Your task to perform on an android device: open a new tab in the chrome app Image 0: 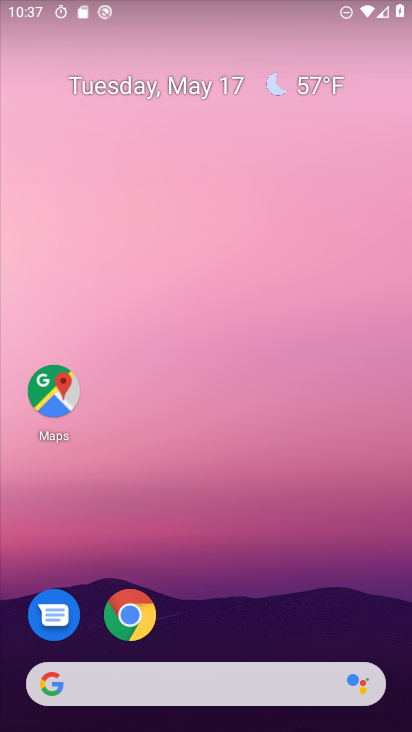
Step 0: click (141, 615)
Your task to perform on an android device: open a new tab in the chrome app Image 1: 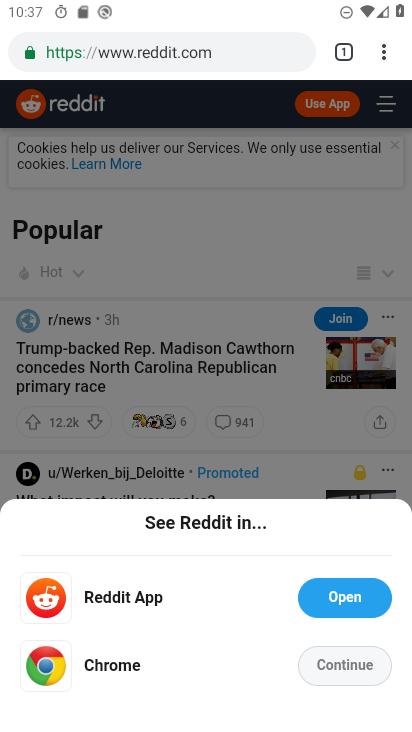
Step 1: click (384, 48)
Your task to perform on an android device: open a new tab in the chrome app Image 2: 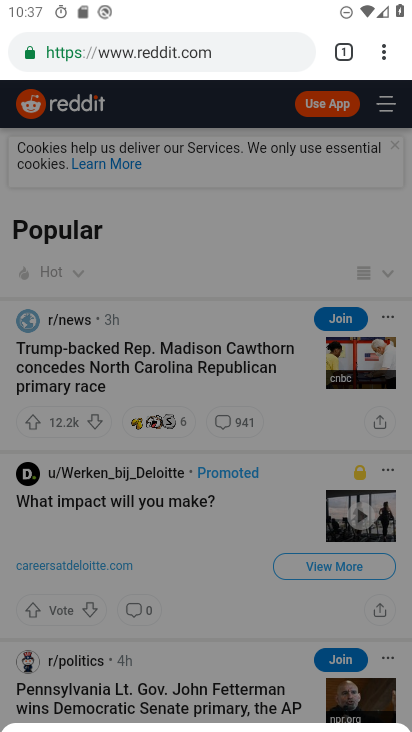
Step 2: click (388, 47)
Your task to perform on an android device: open a new tab in the chrome app Image 3: 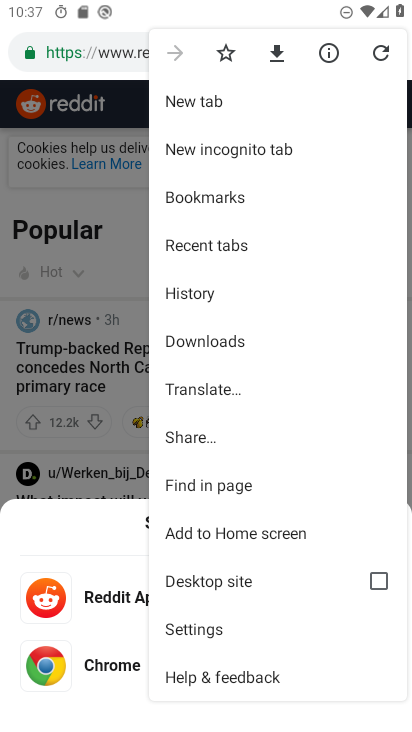
Step 3: click (260, 108)
Your task to perform on an android device: open a new tab in the chrome app Image 4: 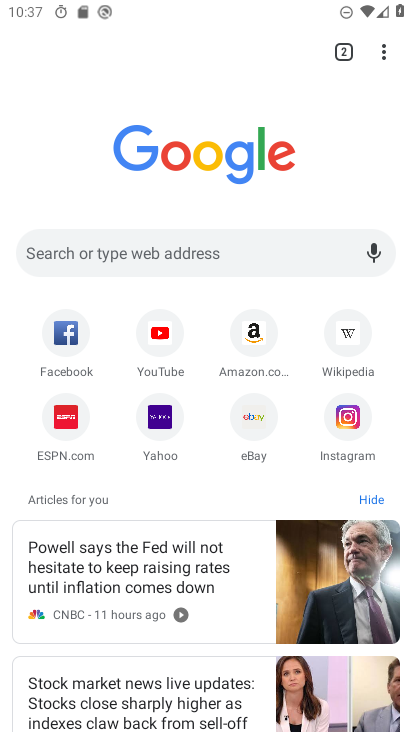
Step 4: task complete